Your task to perform on an android device: Open Android settings Image 0: 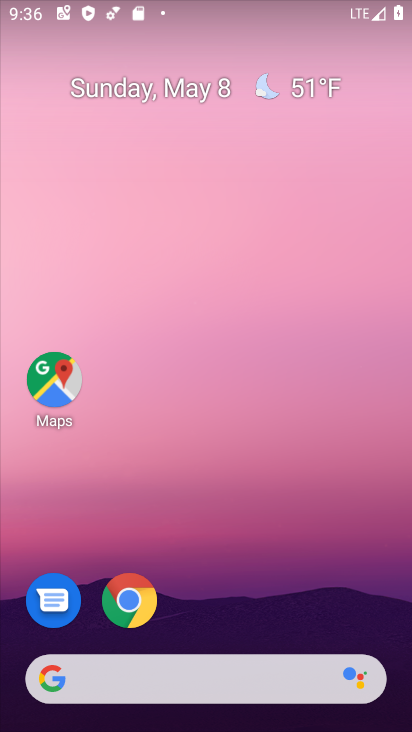
Step 0: drag from (310, 632) to (298, 7)
Your task to perform on an android device: Open Android settings Image 1: 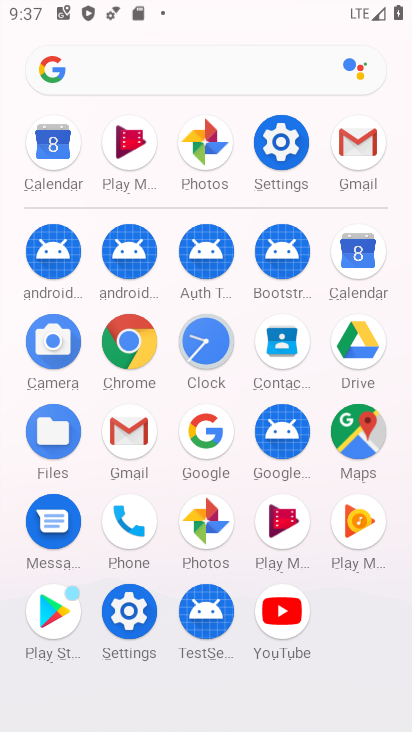
Step 1: click (280, 160)
Your task to perform on an android device: Open Android settings Image 2: 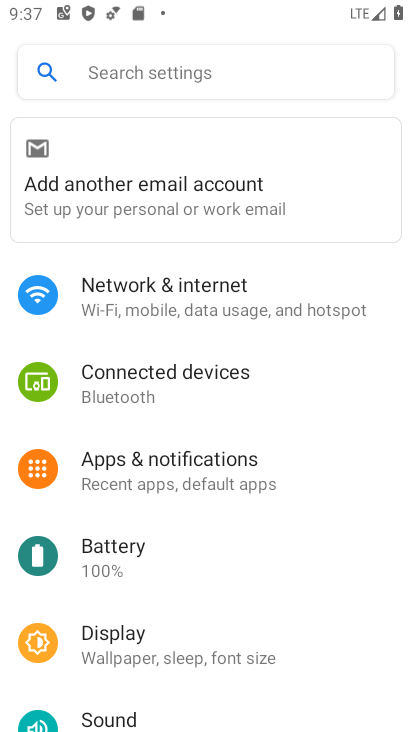
Step 2: task complete